Your task to perform on an android device: toggle airplane mode Image 0: 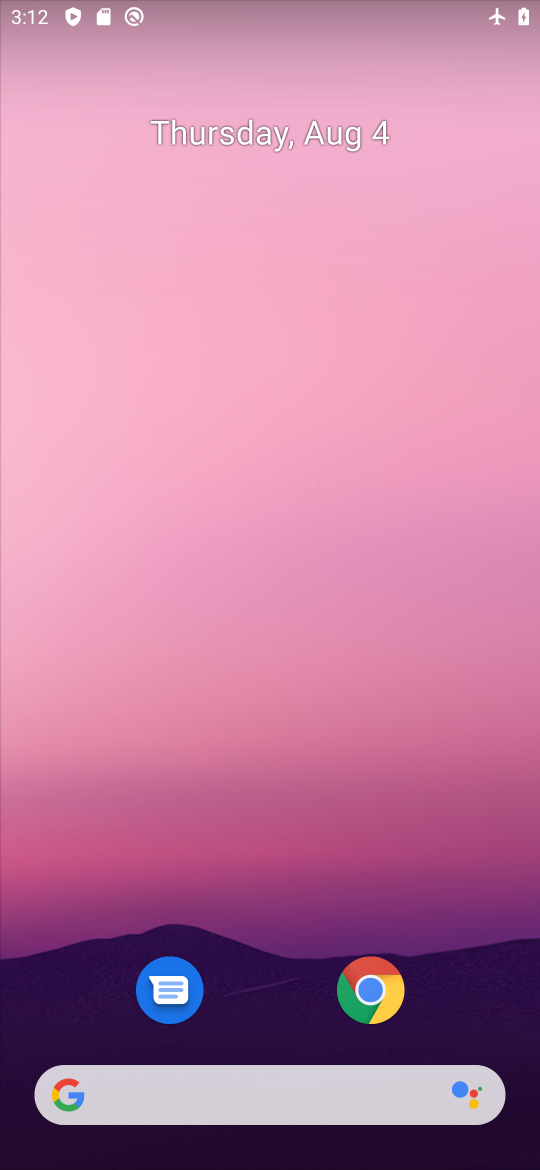
Step 0: task complete